Your task to perform on an android device: Open the web browser Image 0: 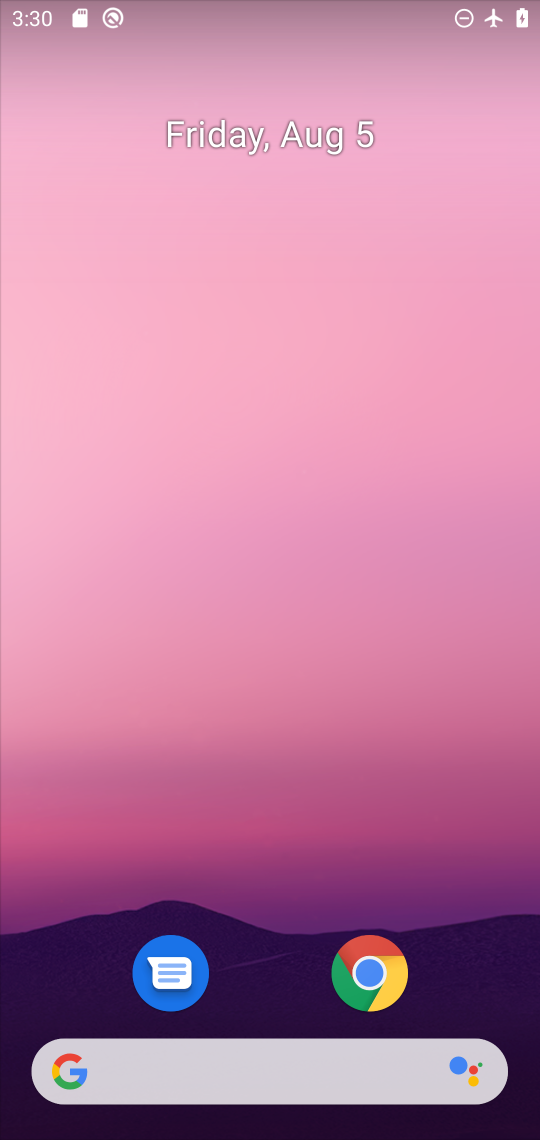
Step 0: click (312, 1065)
Your task to perform on an android device: Open the web browser Image 1: 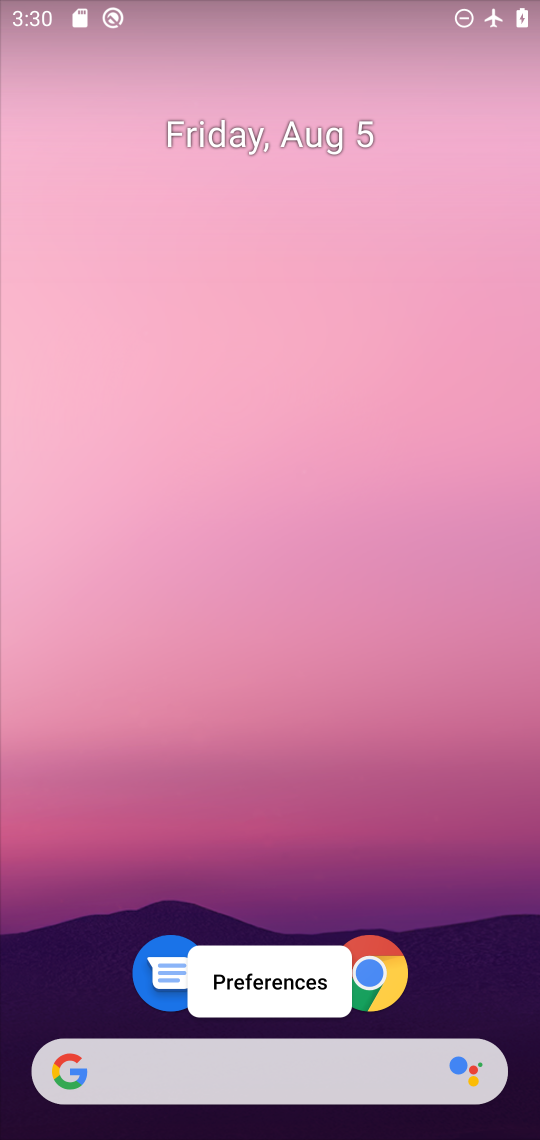
Step 1: click (309, 1048)
Your task to perform on an android device: Open the web browser Image 2: 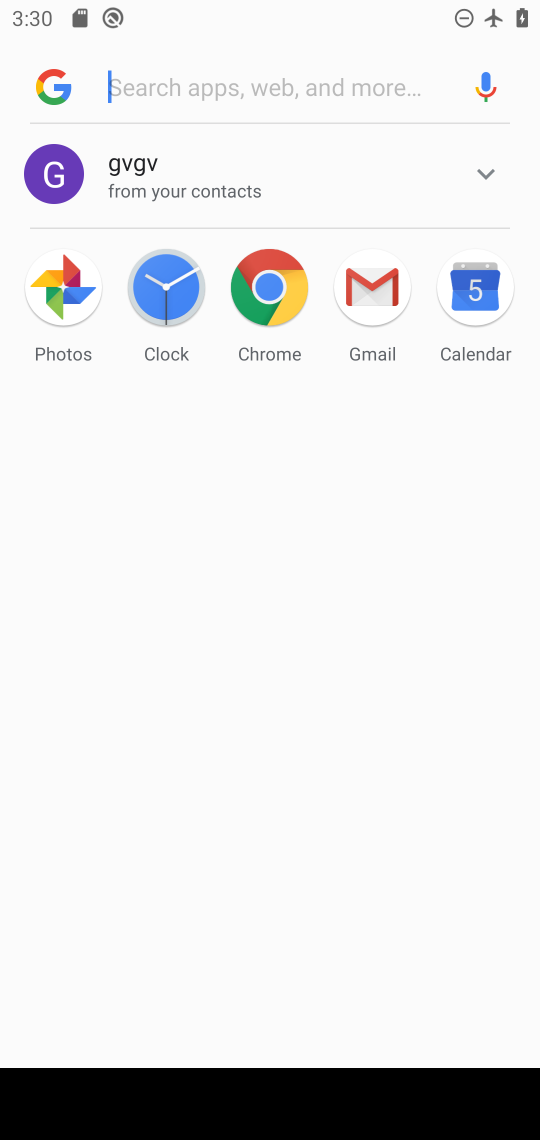
Step 2: task complete